Your task to perform on an android device: What's the news this week? Image 0: 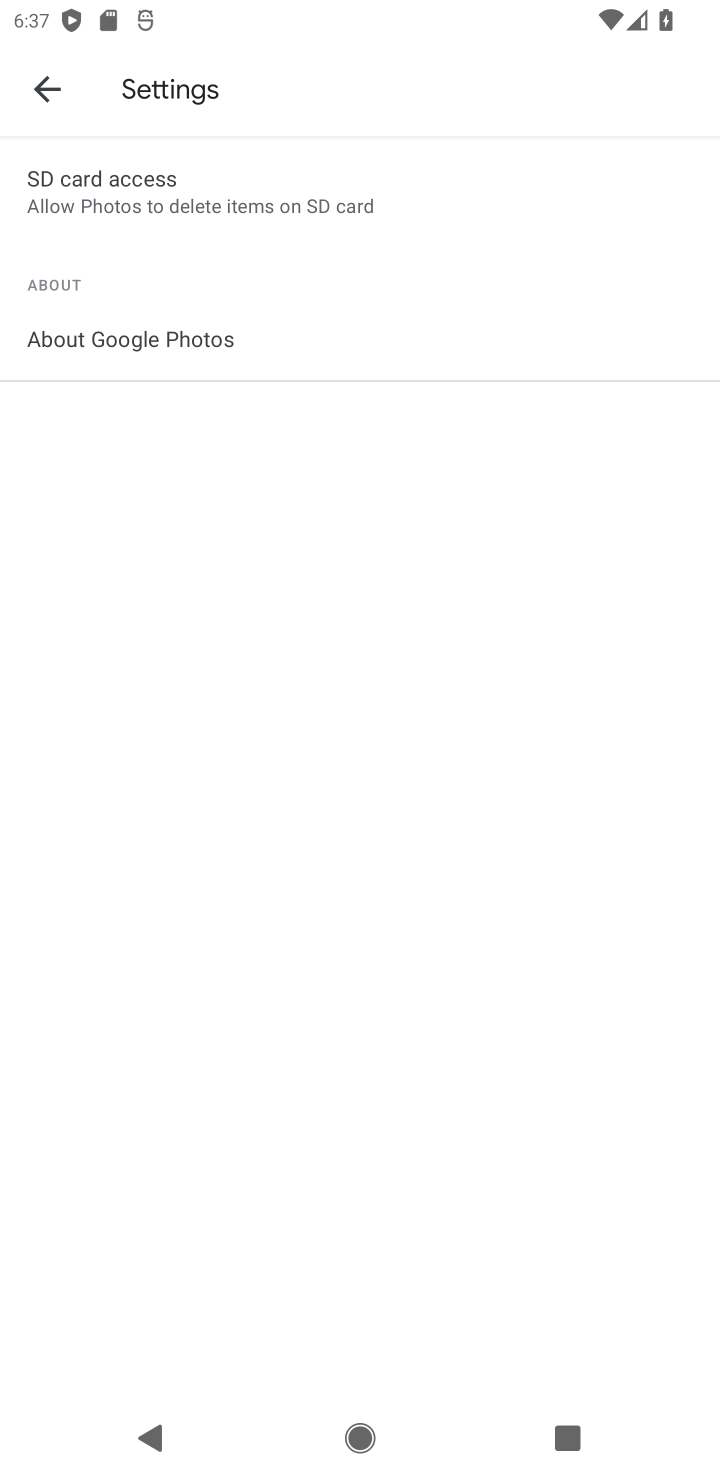
Step 0: press home button
Your task to perform on an android device: What's the news this week? Image 1: 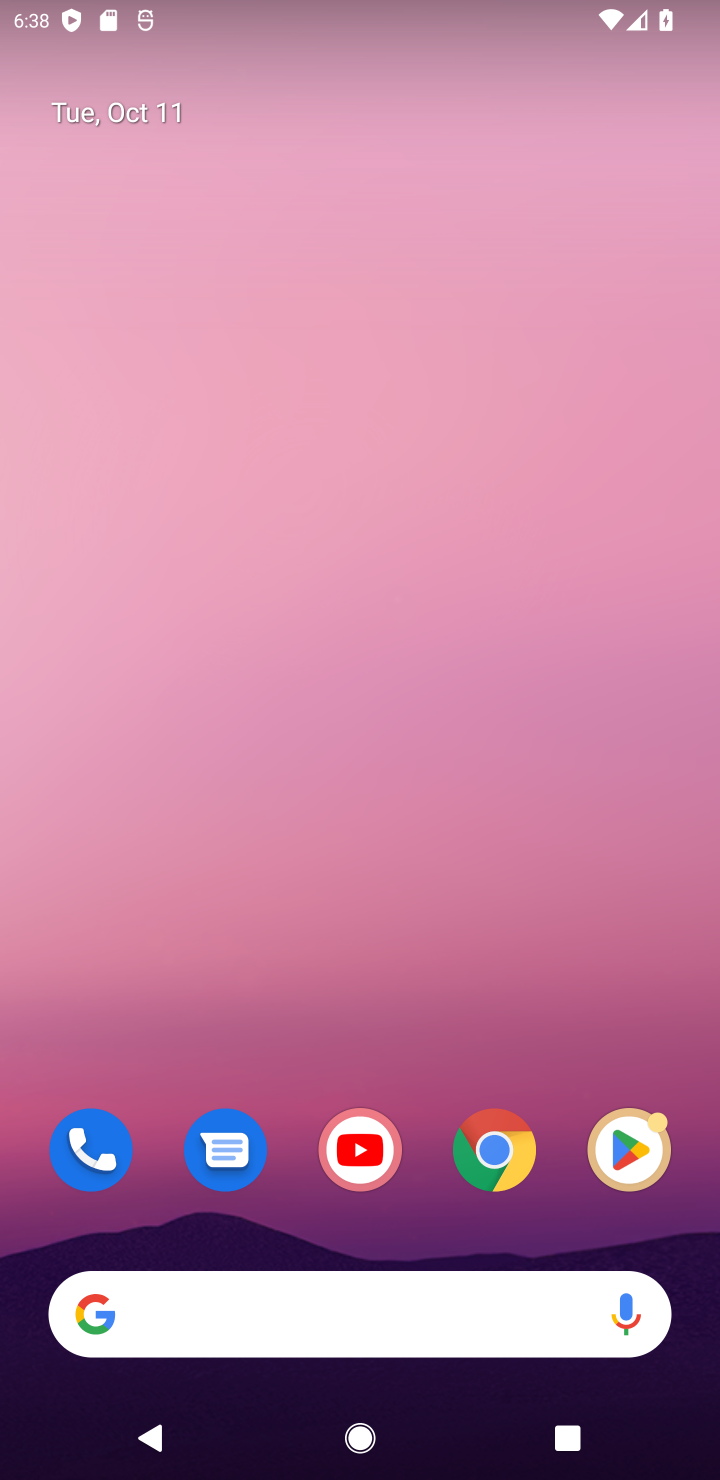
Step 1: click (499, 1152)
Your task to perform on an android device: What's the news this week? Image 2: 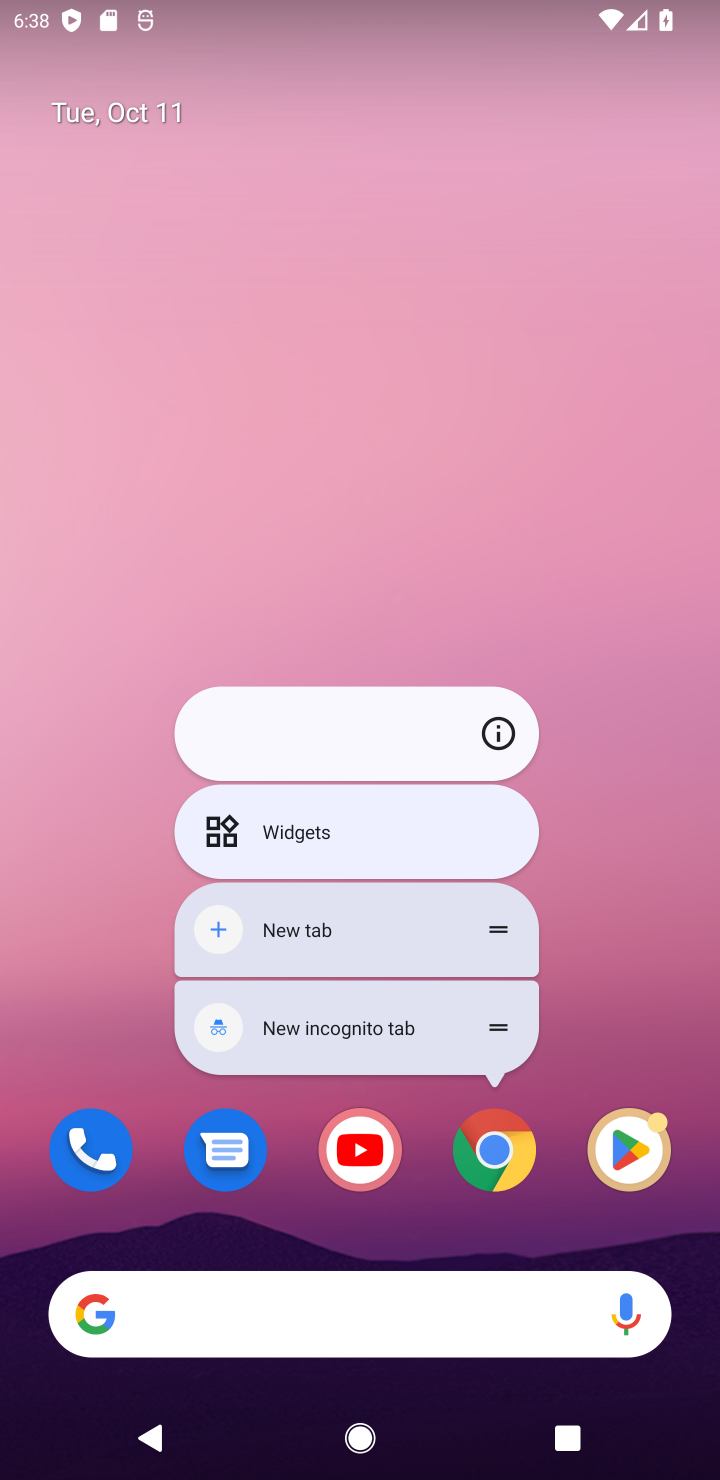
Step 2: click (498, 1133)
Your task to perform on an android device: What's the news this week? Image 3: 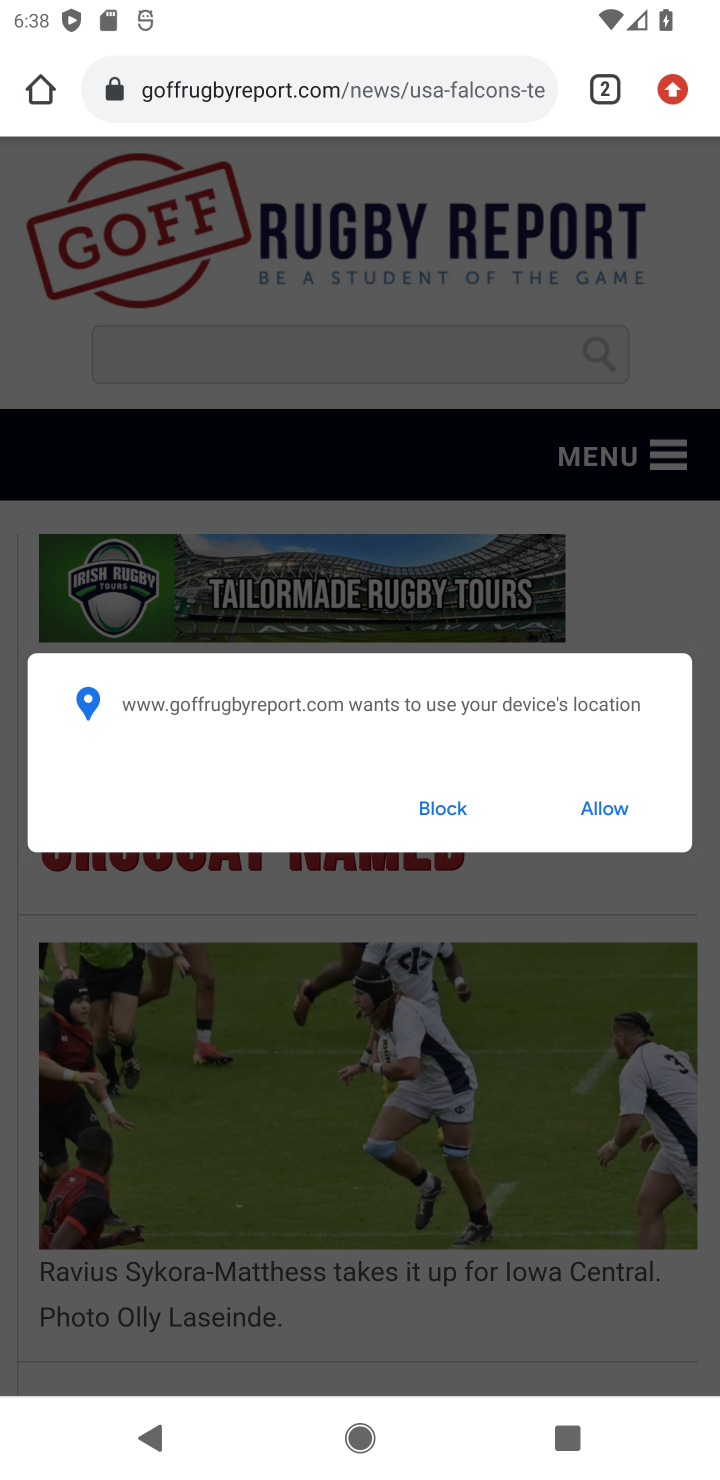
Step 3: click (329, 99)
Your task to perform on an android device: What's the news this week? Image 4: 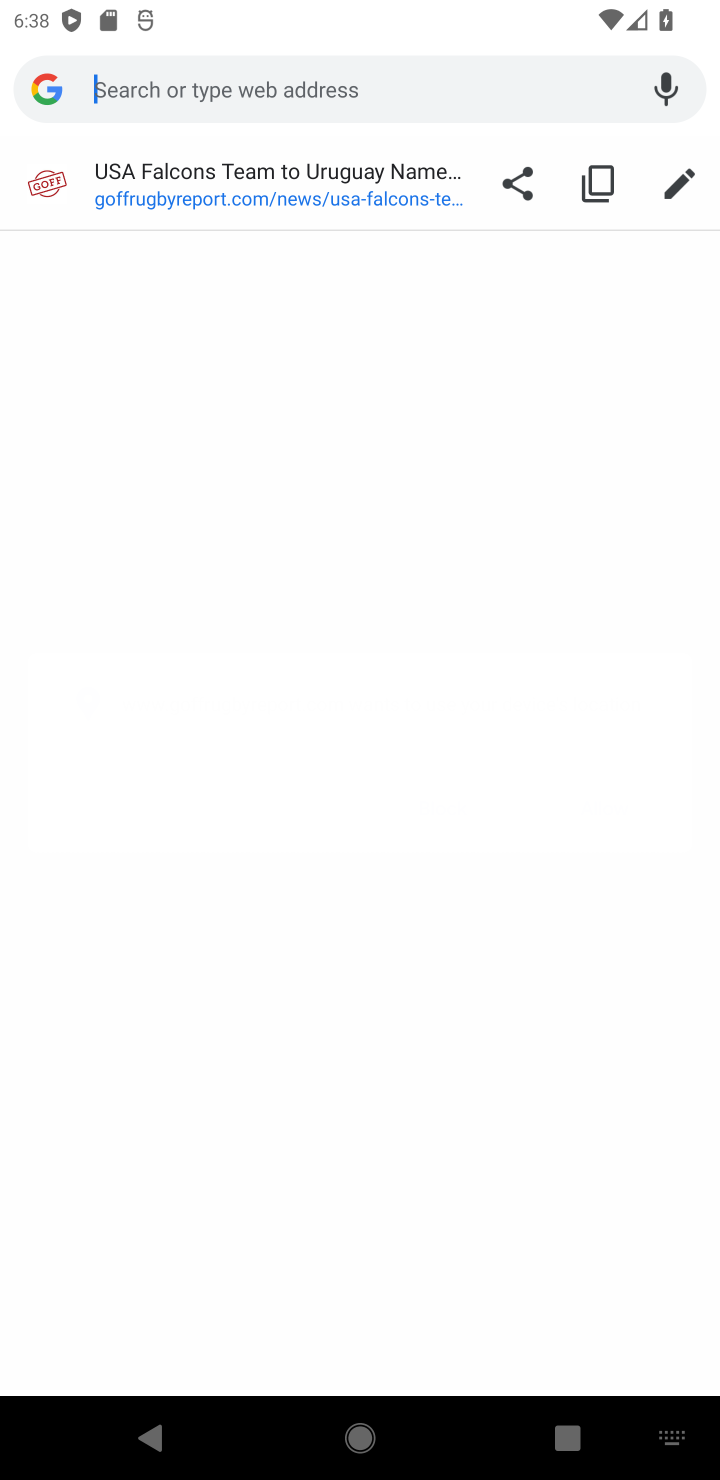
Step 4: type "news this week"
Your task to perform on an android device: What's the news this week? Image 5: 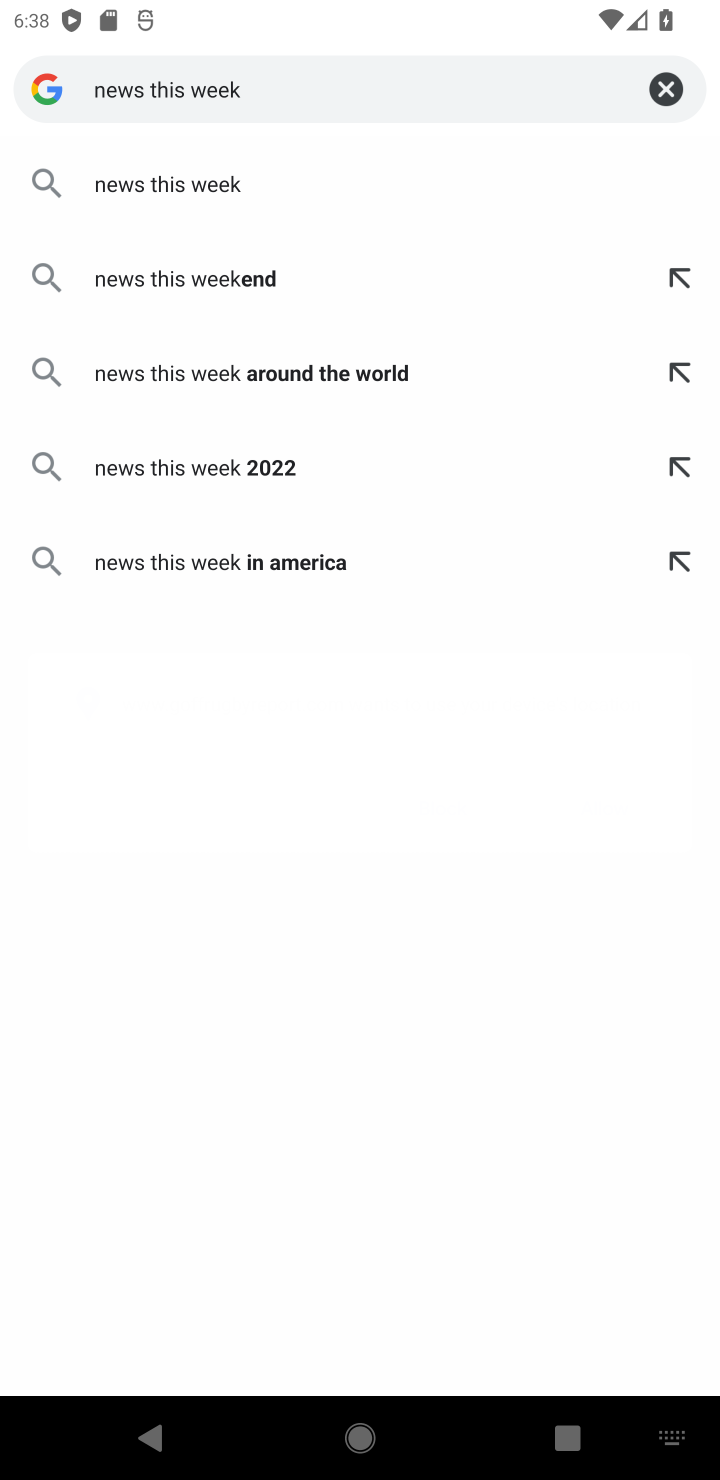
Step 5: click (123, 180)
Your task to perform on an android device: What's the news this week? Image 6: 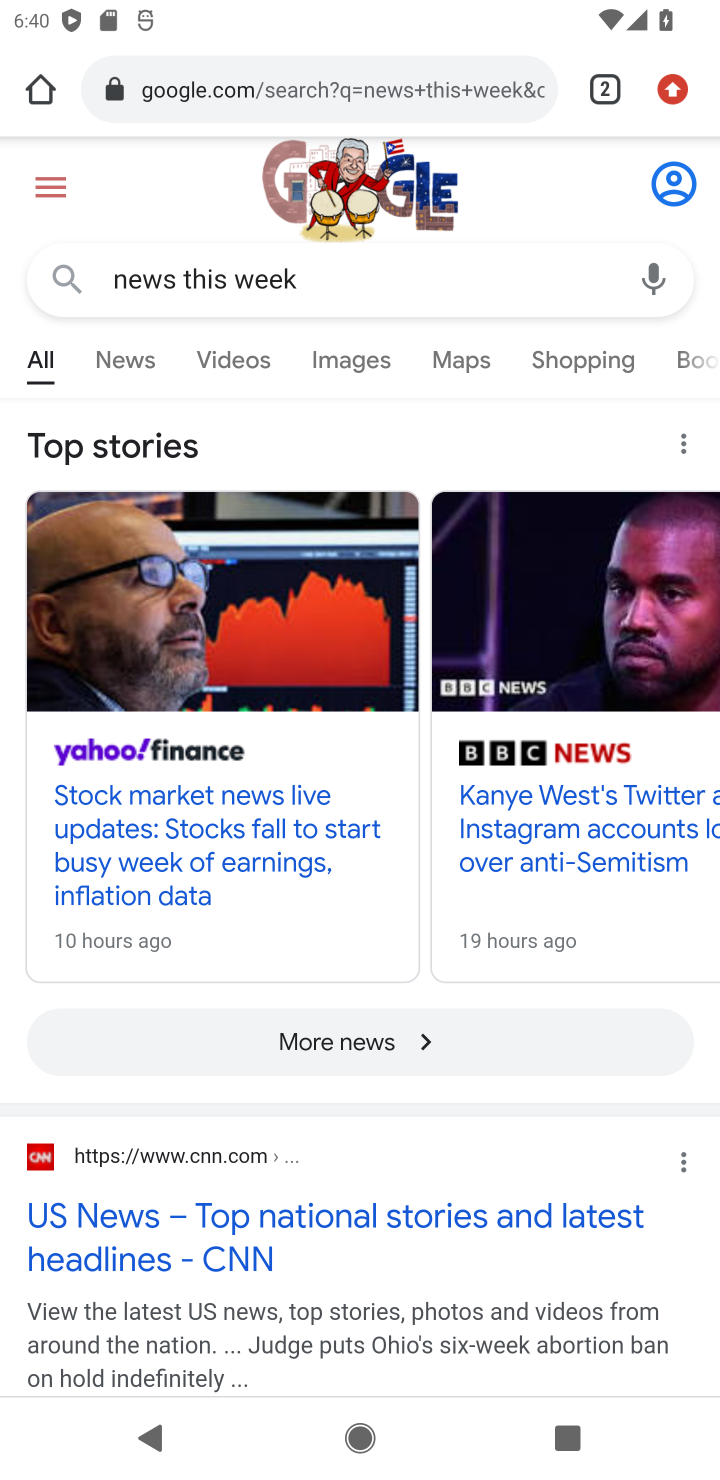
Step 6: click (163, 649)
Your task to perform on an android device: What's the news this week? Image 7: 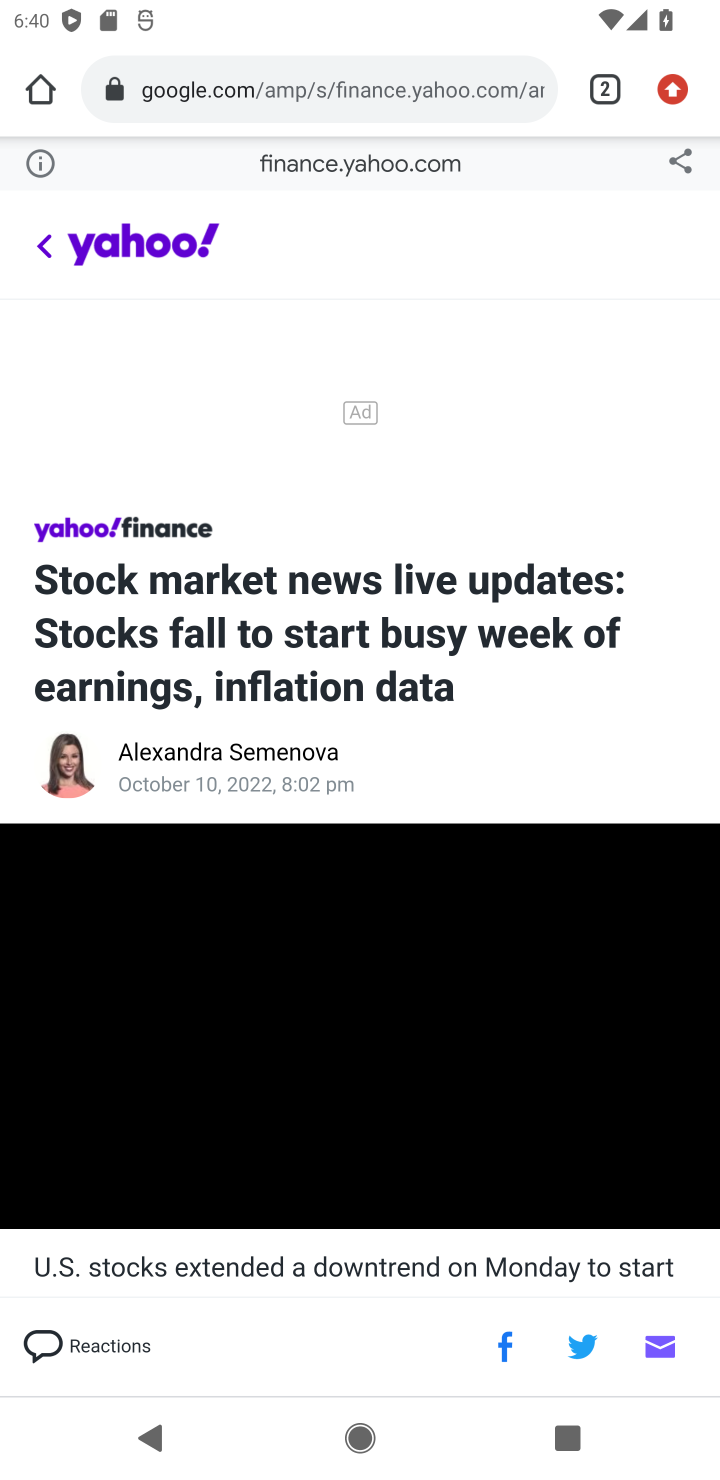
Step 7: task complete